Your task to perform on an android device: change notifications settings Image 0: 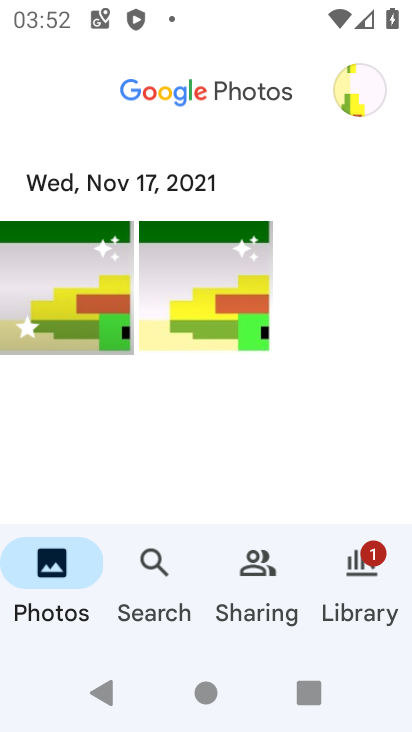
Step 0: press home button
Your task to perform on an android device: change notifications settings Image 1: 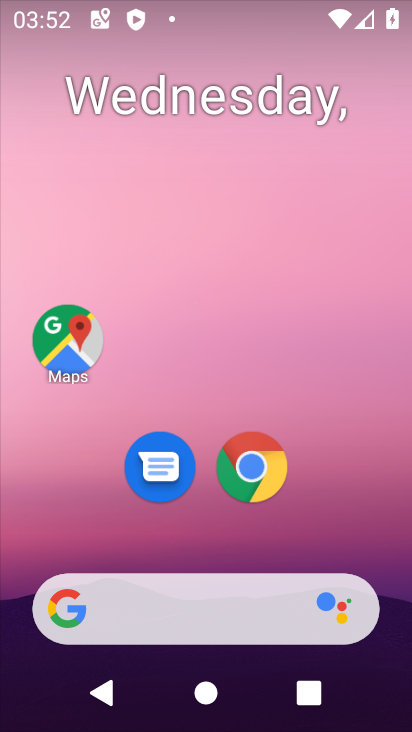
Step 1: drag from (354, 543) to (227, 177)
Your task to perform on an android device: change notifications settings Image 2: 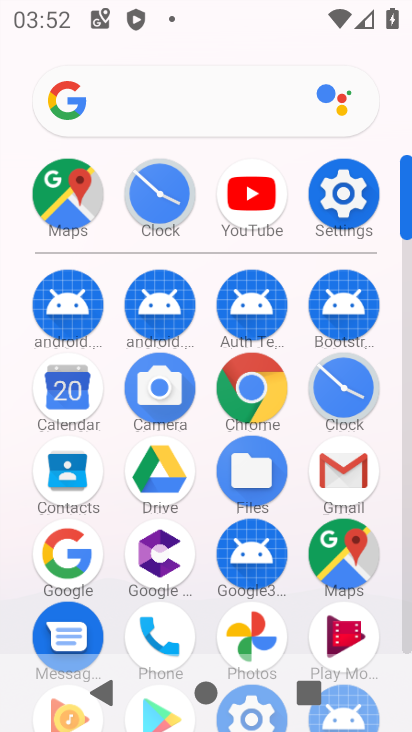
Step 2: click (408, 630)
Your task to perform on an android device: change notifications settings Image 3: 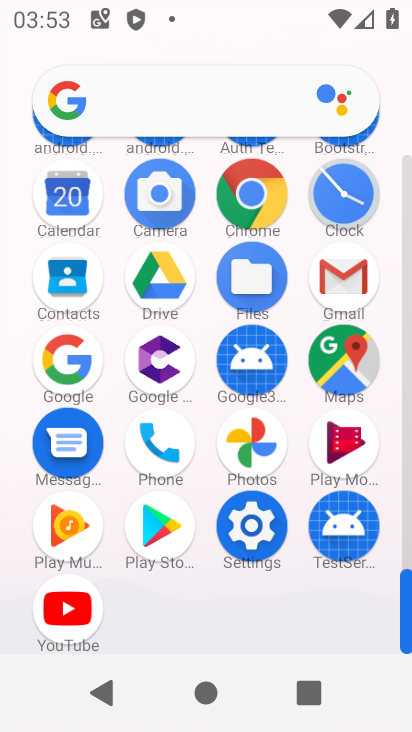
Step 3: click (258, 528)
Your task to perform on an android device: change notifications settings Image 4: 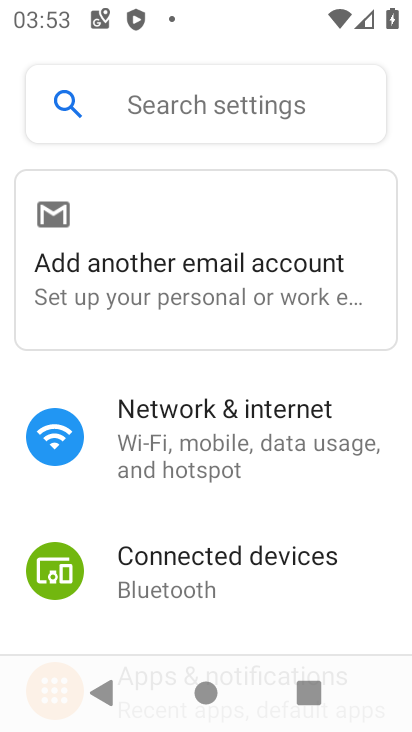
Step 4: drag from (260, 541) to (259, 151)
Your task to perform on an android device: change notifications settings Image 5: 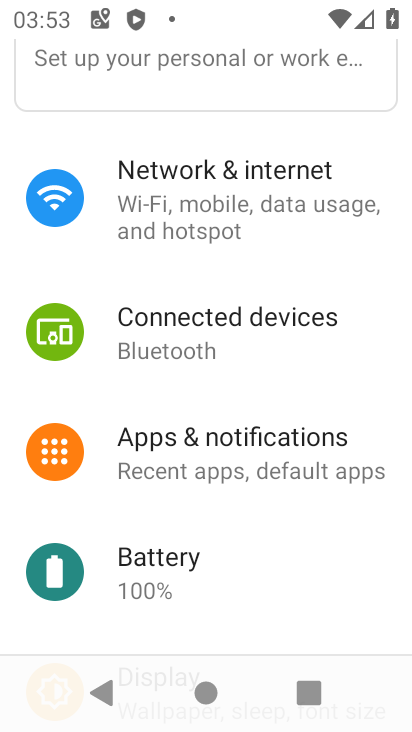
Step 5: click (229, 452)
Your task to perform on an android device: change notifications settings Image 6: 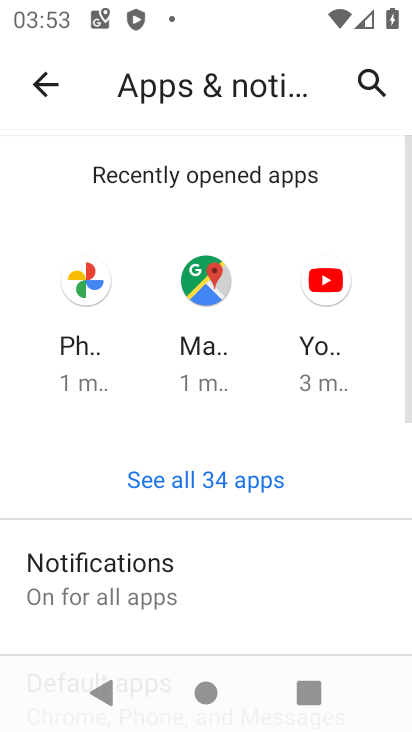
Step 6: drag from (245, 562) to (338, 242)
Your task to perform on an android device: change notifications settings Image 7: 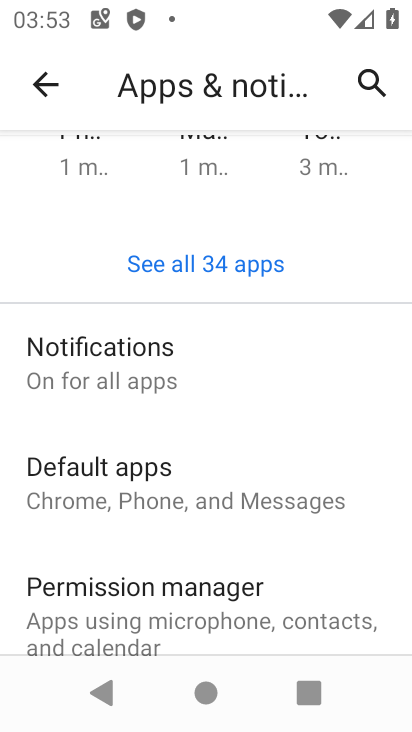
Step 7: click (103, 369)
Your task to perform on an android device: change notifications settings Image 8: 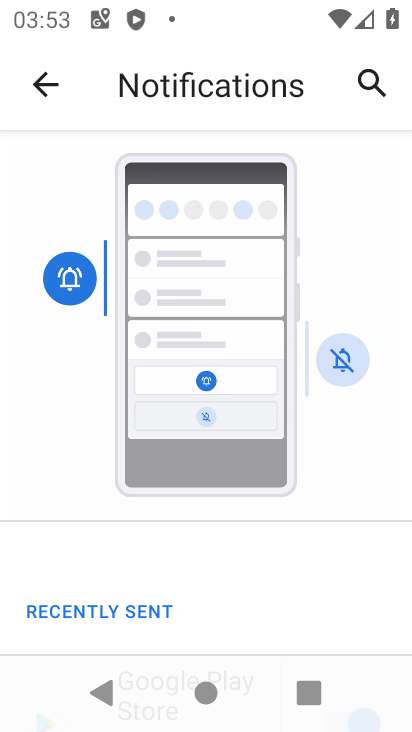
Step 8: drag from (234, 602) to (266, 187)
Your task to perform on an android device: change notifications settings Image 9: 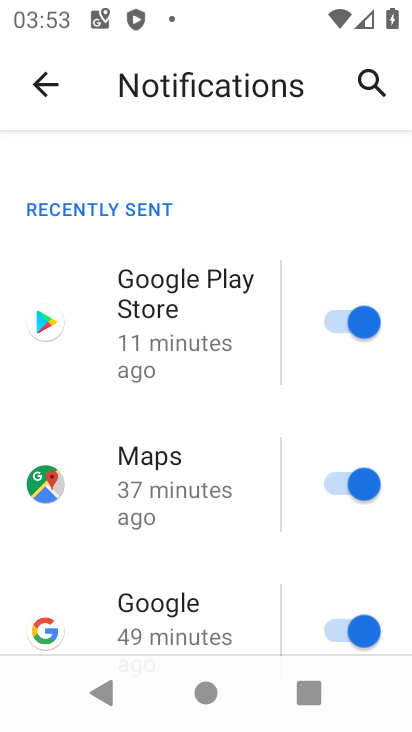
Step 9: drag from (271, 608) to (225, 115)
Your task to perform on an android device: change notifications settings Image 10: 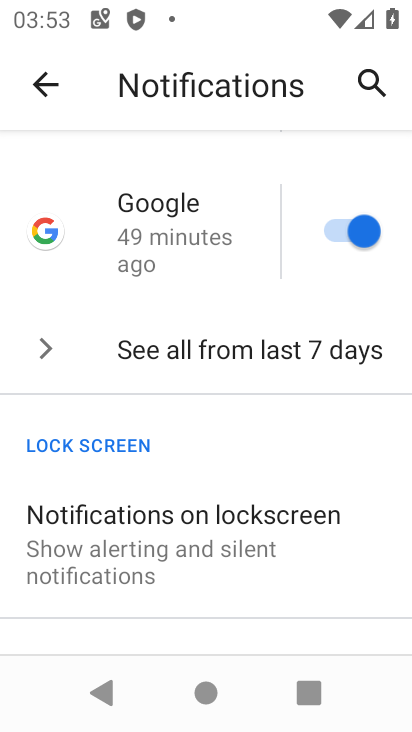
Step 10: drag from (260, 613) to (282, 152)
Your task to perform on an android device: change notifications settings Image 11: 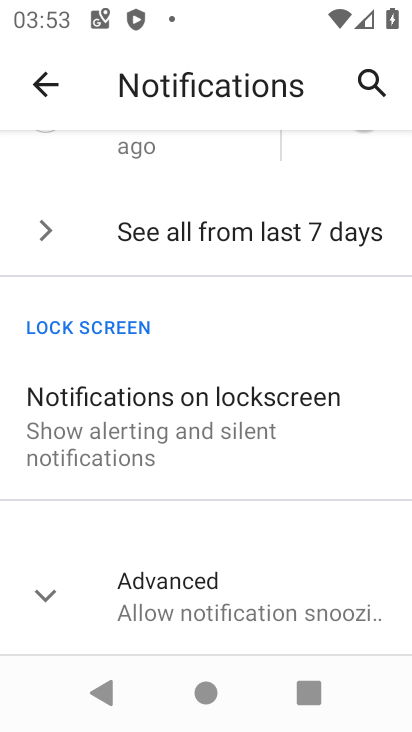
Step 11: click (44, 596)
Your task to perform on an android device: change notifications settings Image 12: 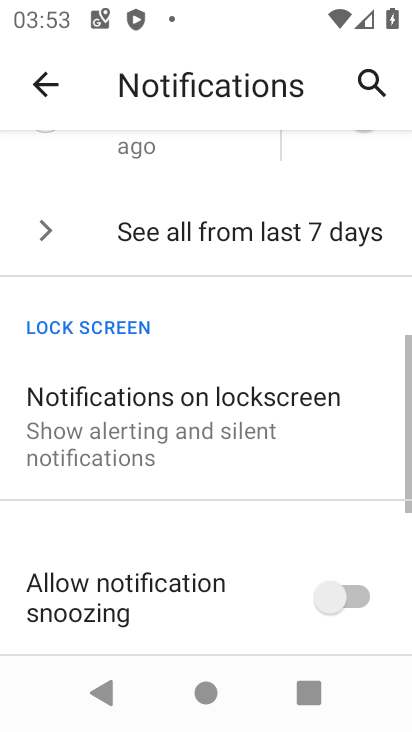
Step 12: task complete